Your task to perform on an android device: Go to Google maps Image 0: 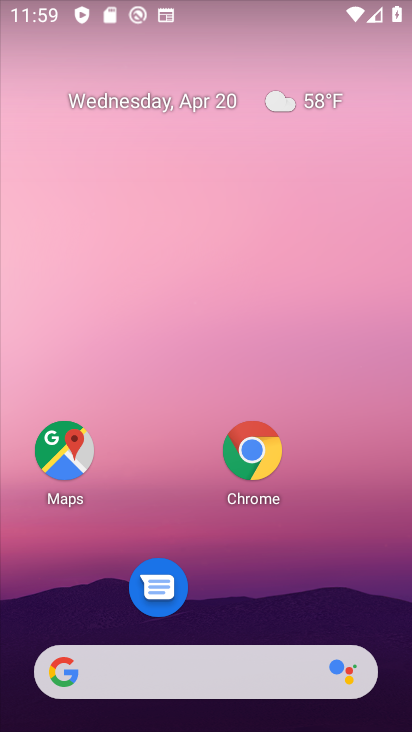
Step 0: click (75, 431)
Your task to perform on an android device: Go to Google maps Image 1: 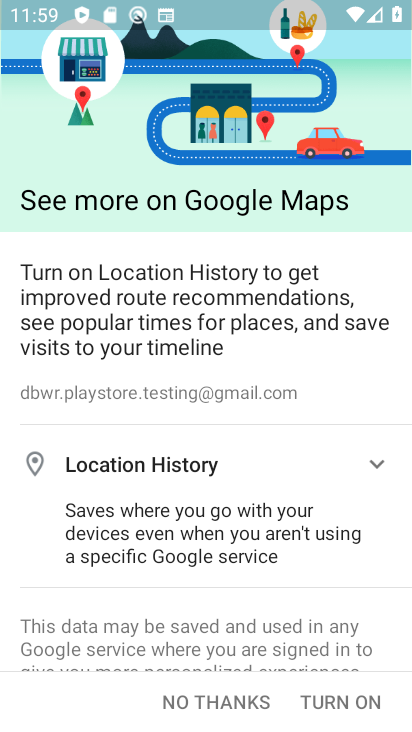
Step 1: click (347, 695)
Your task to perform on an android device: Go to Google maps Image 2: 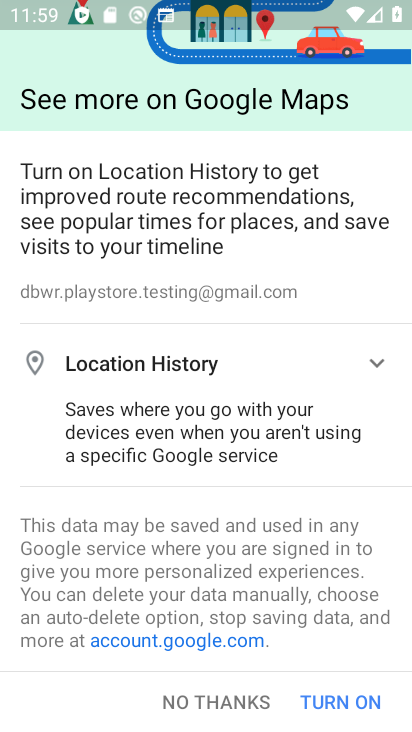
Step 2: click (347, 695)
Your task to perform on an android device: Go to Google maps Image 3: 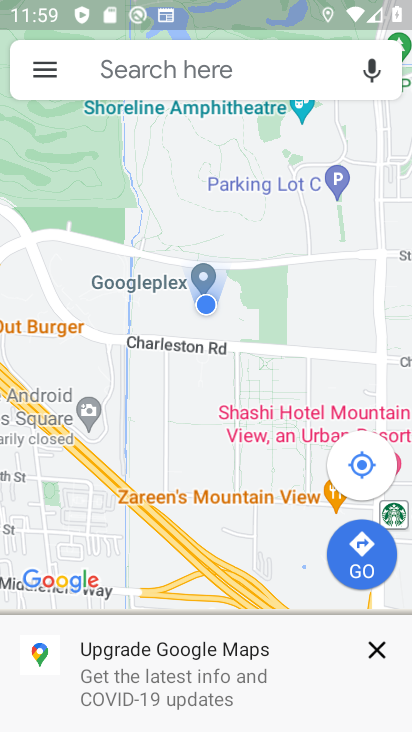
Step 3: task complete